Your task to perform on an android device: What's on my calendar today? Image 0: 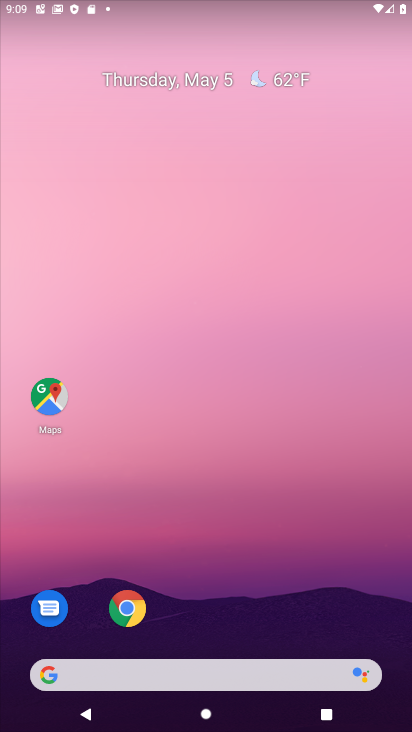
Step 0: drag from (282, 574) to (397, 617)
Your task to perform on an android device: What's on my calendar today? Image 1: 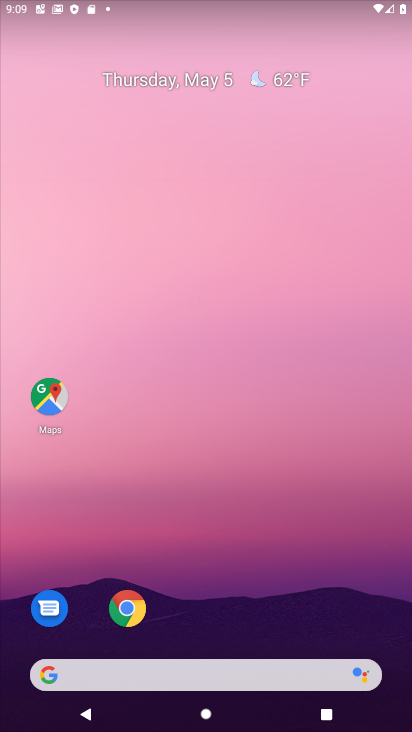
Step 1: drag from (399, 627) to (323, 0)
Your task to perform on an android device: What's on my calendar today? Image 2: 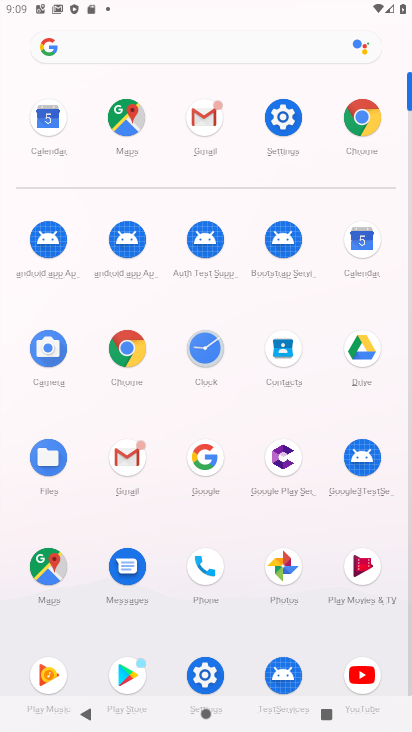
Step 2: click (361, 234)
Your task to perform on an android device: What's on my calendar today? Image 3: 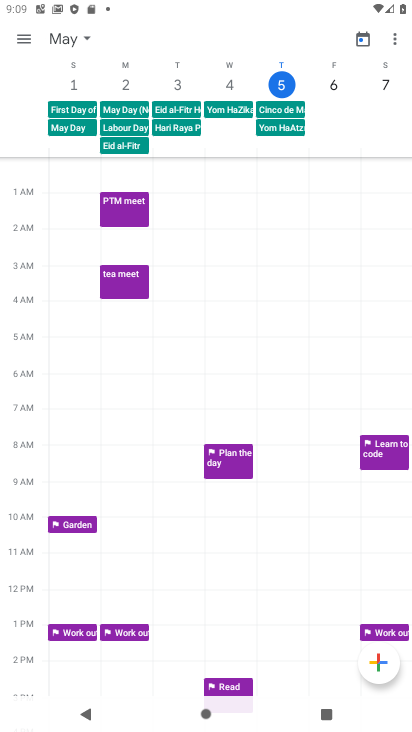
Step 3: task complete